Your task to perform on an android device: Search for seafood restaurants on Google Maps Image 0: 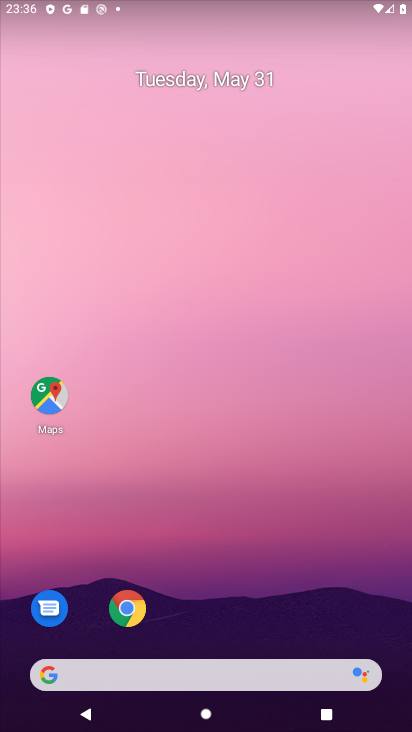
Step 0: drag from (257, 622) to (288, 0)
Your task to perform on an android device: Search for seafood restaurants on Google Maps Image 1: 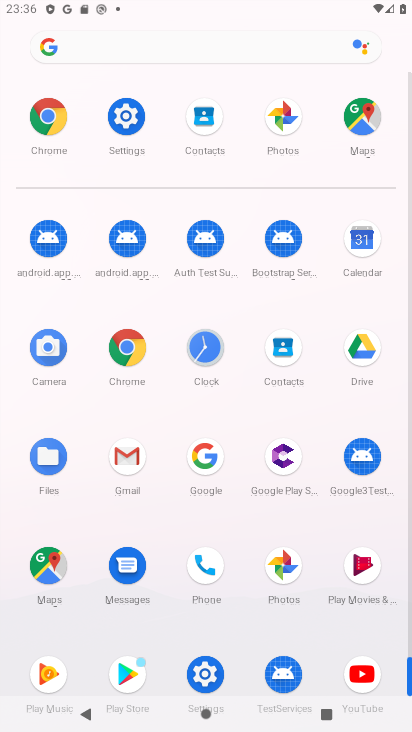
Step 1: click (367, 122)
Your task to perform on an android device: Search for seafood restaurants on Google Maps Image 2: 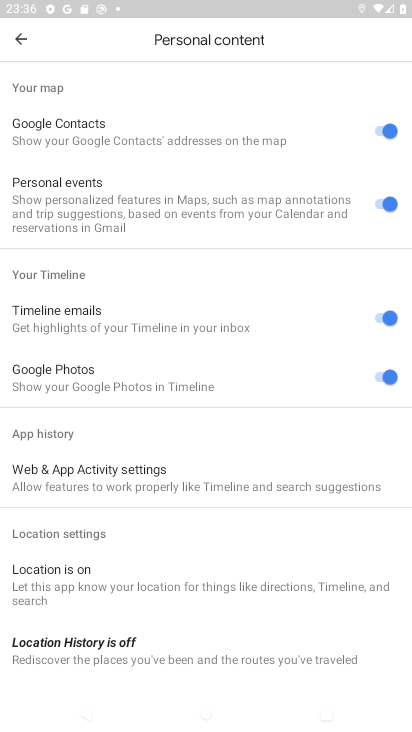
Step 2: click (10, 36)
Your task to perform on an android device: Search for seafood restaurants on Google Maps Image 3: 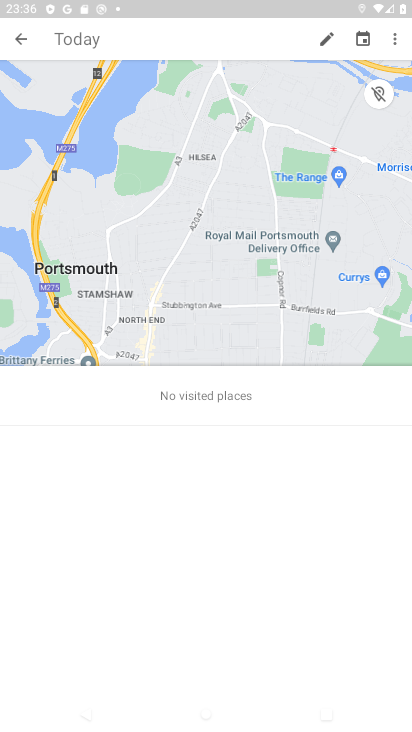
Step 3: click (10, 36)
Your task to perform on an android device: Search for seafood restaurants on Google Maps Image 4: 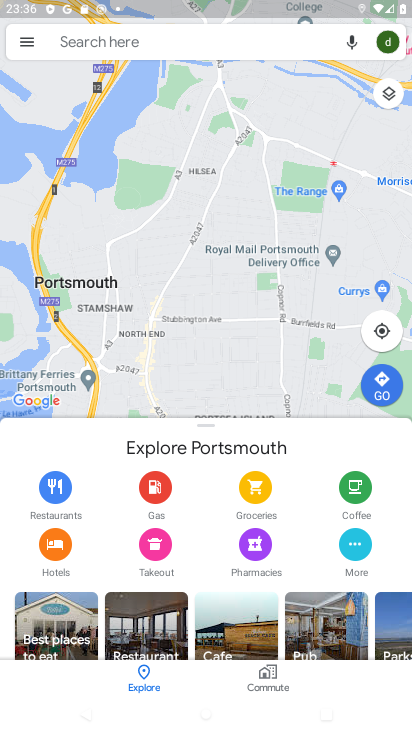
Step 4: click (197, 36)
Your task to perform on an android device: Search for seafood restaurants on Google Maps Image 5: 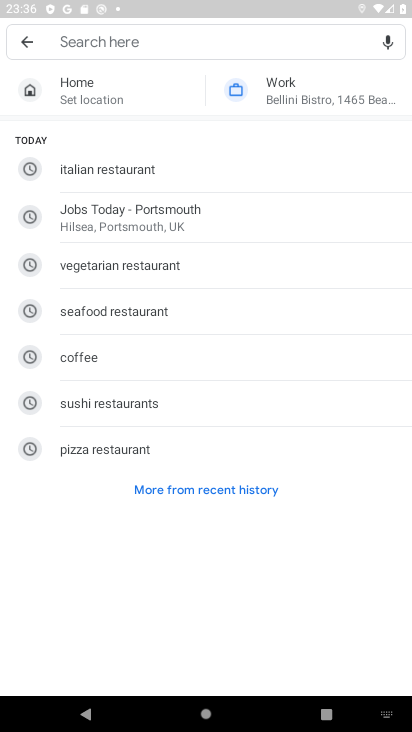
Step 5: type " seafood restaurants"
Your task to perform on an android device: Search for seafood restaurants on Google Maps Image 6: 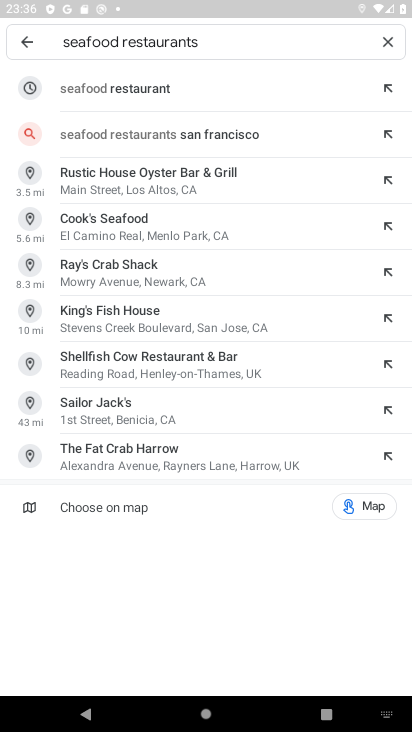
Step 6: click (41, 90)
Your task to perform on an android device: Search for seafood restaurants on Google Maps Image 7: 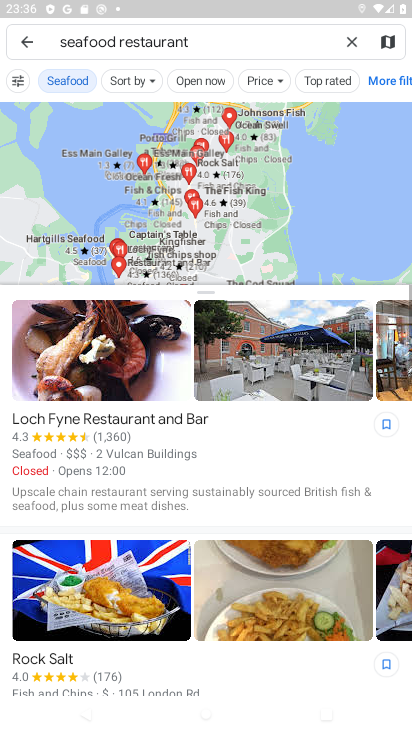
Step 7: task complete